Your task to perform on an android device: turn off notifications settings in the gmail app Image 0: 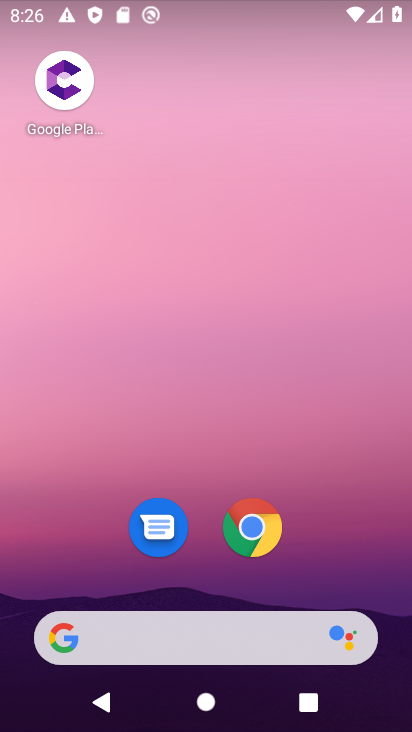
Step 0: drag from (302, 625) to (310, 69)
Your task to perform on an android device: turn off notifications settings in the gmail app Image 1: 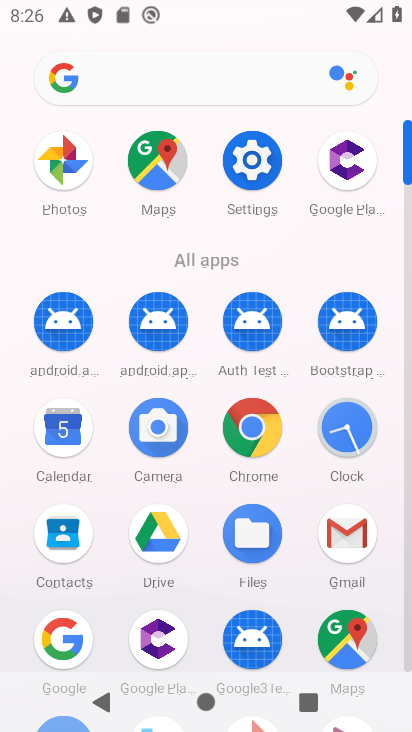
Step 1: click (393, 547)
Your task to perform on an android device: turn off notifications settings in the gmail app Image 2: 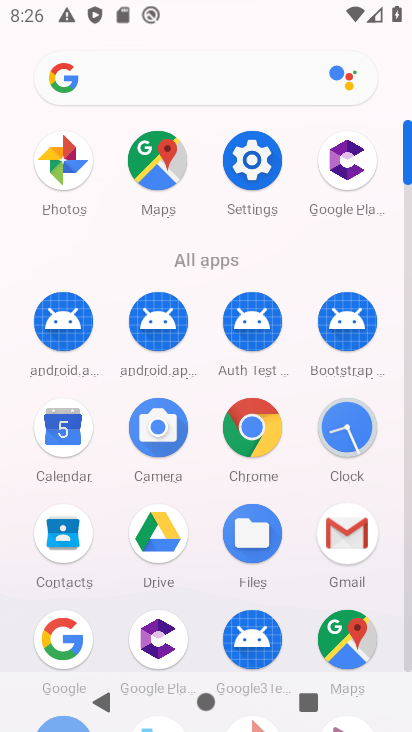
Step 2: click (367, 546)
Your task to perform on an android device: turn off notifications settings in the gmail app Image 3: 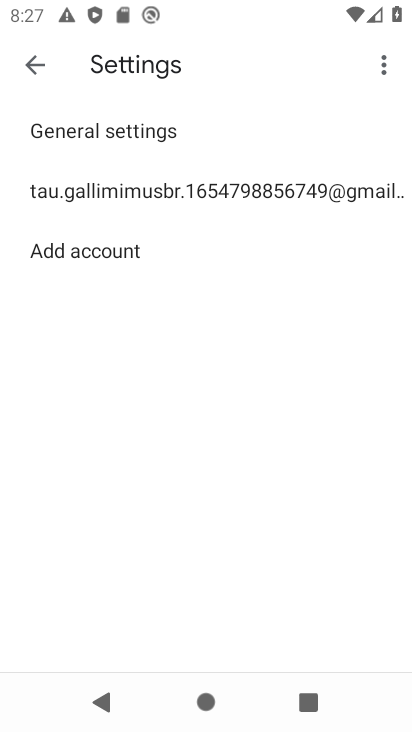
Step 3: click (72, 196)
Your task to perform on an android device: turn off notifications settings in the gmail app Image 4: 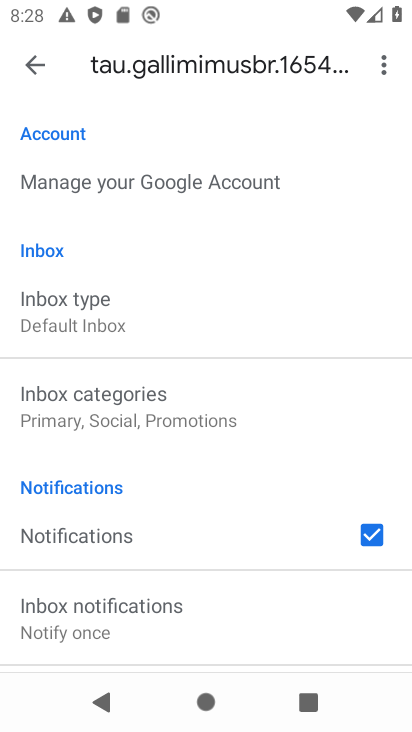
Step 4: drag from (145, 568) to (214, 255)
Your task to perform on an android device: turn off notifications settings in the gmail app Image 5: 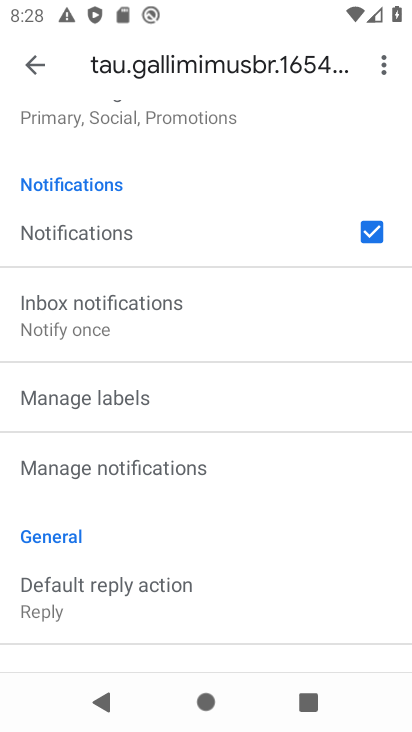
Step 5: drag from (189, 310) to (124, 724)
Your task to perform on an android device: turn off notifications settings in the gmail app Image 6: 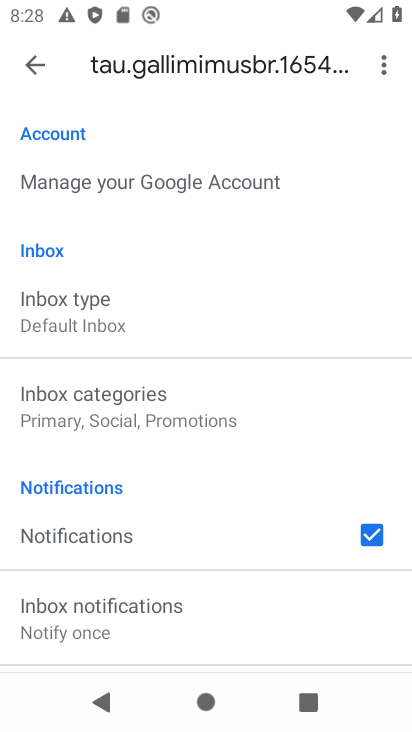
Step 6: click (368, 542)
Your task to perform on an android device: turn off notifications settings in the gmail app Image 7: 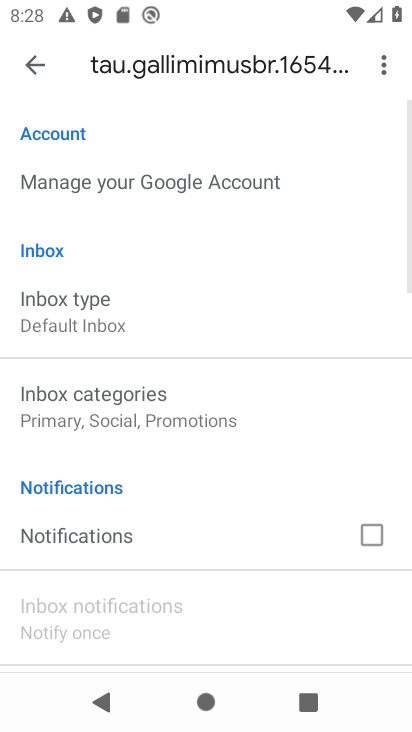
Step 7: task complete